Your task to perform on an android device: Open network settings Image 0: 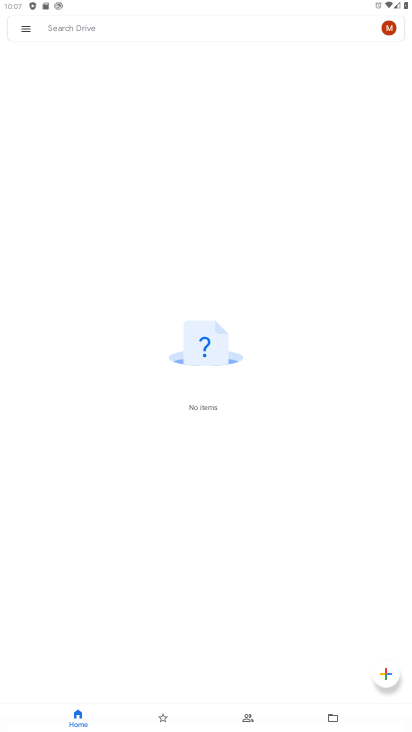
Step 0: press home button
Your task to perform on an android device: Open network settings Image 1: 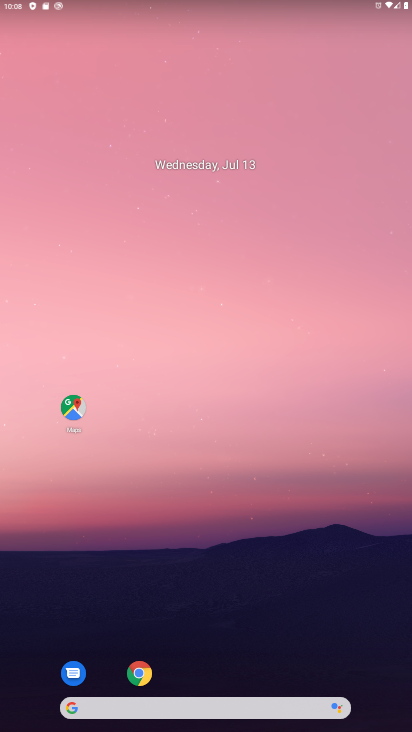
Step 1: drag from (261, 687) to (258, 211)
Your task to perform on an android device: Open network settings Image 2: 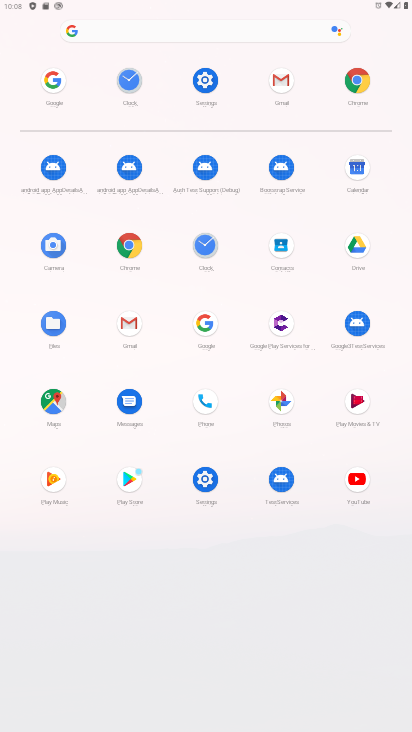
Step 2: click (200, 85)
Your task to perform on an android device: Open network settings Image 3: 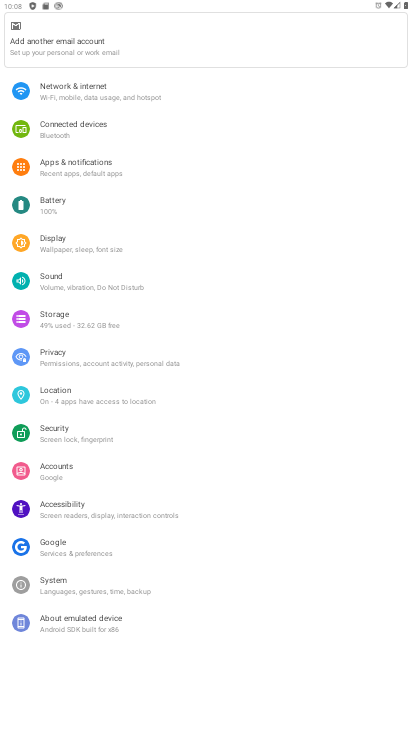
Step 3: click (75, 106)
Your task to perform on an android device: Open network settings Image 4: 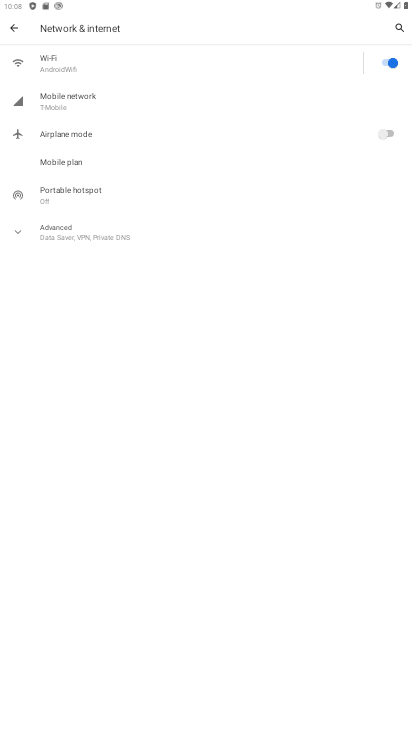
Step 4: click (88, 238)
Your task to perform on an android device: Open network settings Image 5: 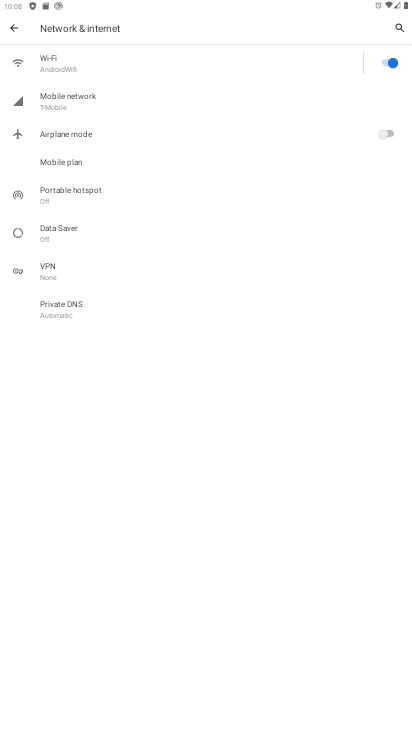
Step 5: task complete